Your task to perform on an android device: What's the weather like in Hong Kong? Image 0: 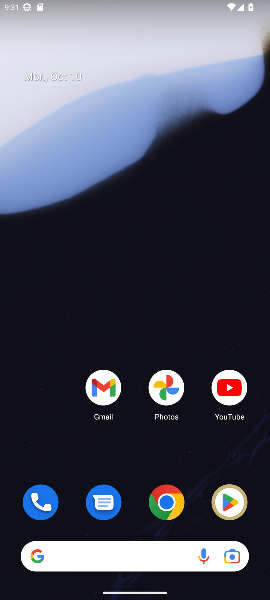
Step 0: click (162, 514)
Your task to perform on an android device: What's the weather like in Hong Kong? Image 1: 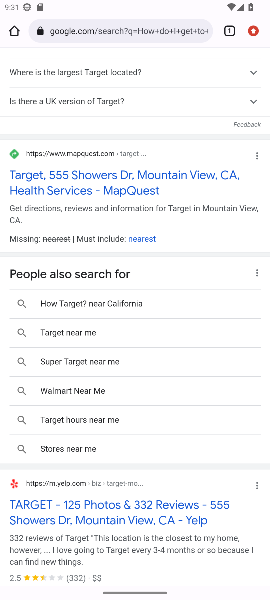
Step 1: click (93, 26)
Your task to perform on an android device: What's the weather like in Hong Kong? Image 2: 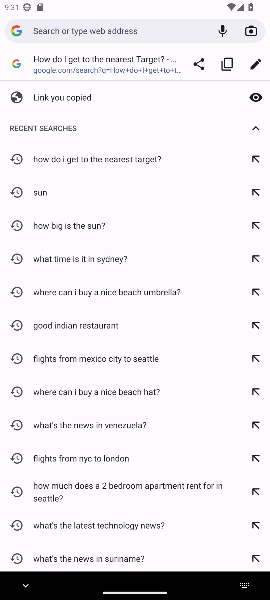
Step 2: type "What's the weather like in Hong Kong?"
Your task to perform on an android device: What's the weather like in Hong Kong? Image 3: 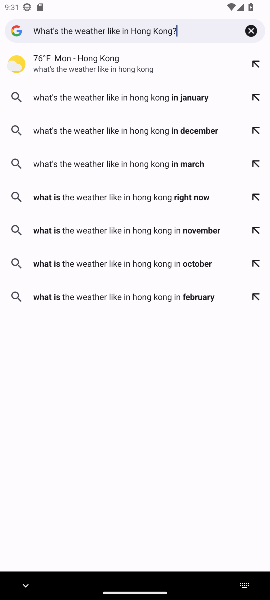
Step 3: type ""
Your task to perform on an android device: What's the weather like in Hong Kong? Image 4: 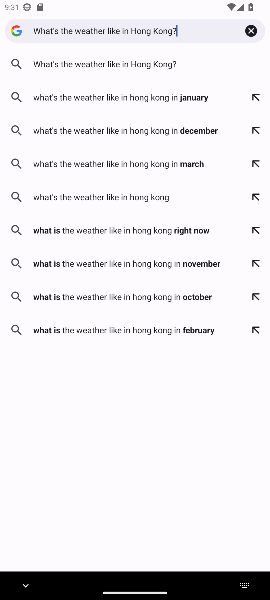
Step 4: click (90, 69)
Your task to perform on an android device: What's the weather like in Hong Kong? Image 5: 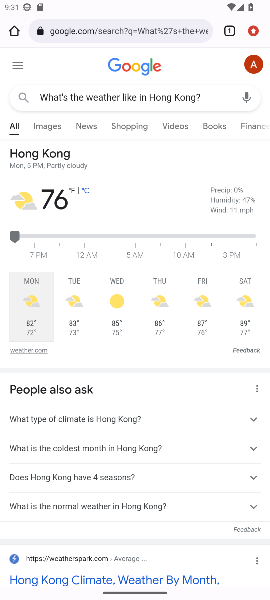
Step 5: click (110, 574)
Your task to perform on an android device: What's the weather like in Hong Kong? Image 6: 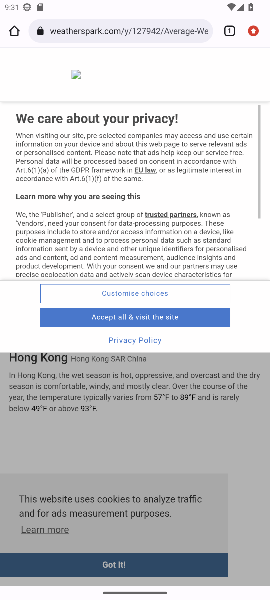
Step 6: drag from (115, 569) to (167, 235)
Your task to perform on an android device: What's the weather like in Hong Kong? Image 7: 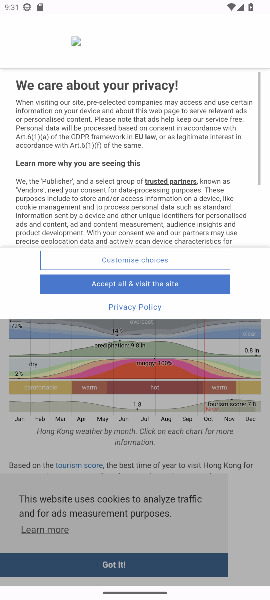
Step 7: click (120, 288)
Your task to perform on an android device: What's the weather like in Hong Kong? Image 8: 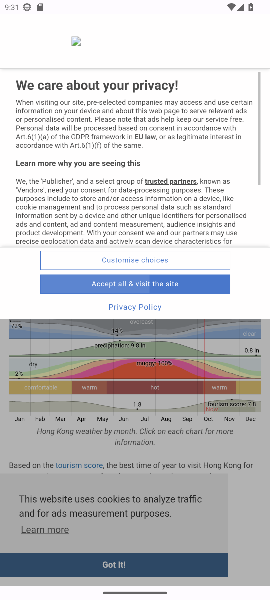
Step 8: click (175, 163)
Your task to perform on an android device: What's the weather like in Hong Kong? Image 9: 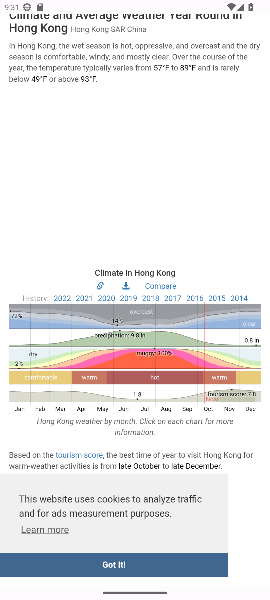
Step 9: click (128, 277)
Your task to perform on an android device: What's the weather like in Hong Kong? Image 10: 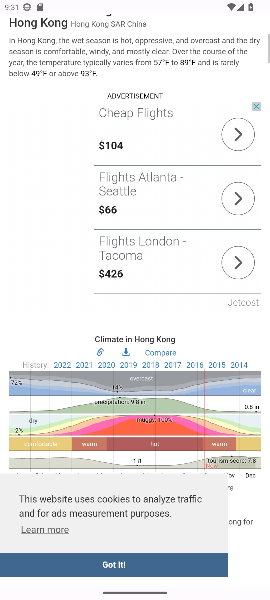
Step 10: drag from (144, 416) to (147, 113)
Your task to perform on an android device: What's the weather like in Hong Kong? Image 11: 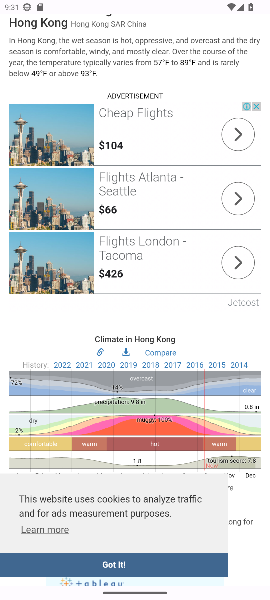
Step 11: drag from (164, 322) to (170, 122)
Your task to perform on an android device: What's the weather like in Hong Kong? Image 12: 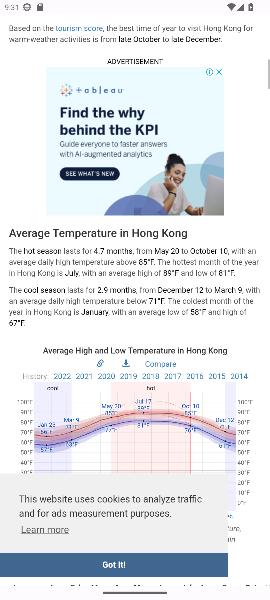
Step 12: drag from (185, 329) to (185, 143)
Your task to perform on an android device: What's the weather like in Hong Kong? Image 13: 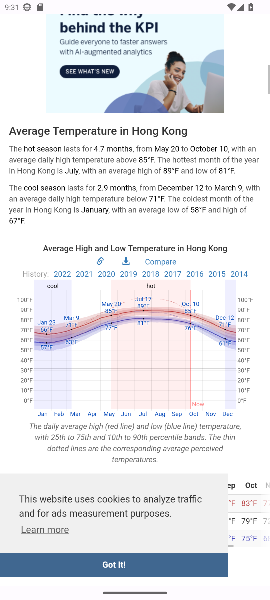
Step 13: drag from (205, 430) to (224, 174)
Your task to perform on an android device: What's the weather like in Hong Kong? Image 14: 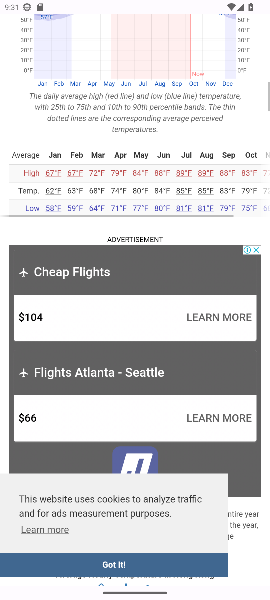
Step 14: drag from (175, 426) to (188, 183)
Your task to perform on an android device: What's the weather like in Hong Kong? Image 15: 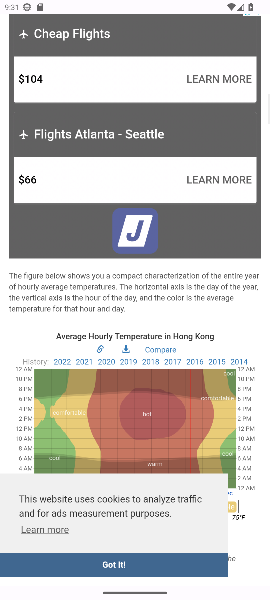
Step 15: click (104, 568)
Your task to perform on an android device: What's the weather like in Hong Kong? Image 16: 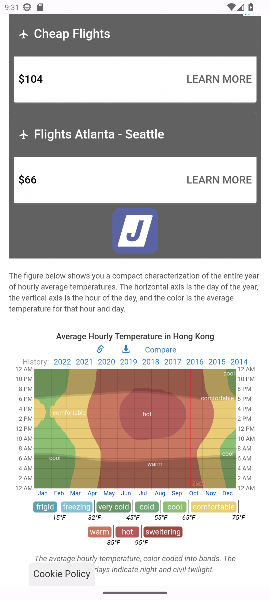
Step 16: drag from (160, 324) to (160, 165)
Your task to perform on an android device: What's the weather like in Hong Kong? Image 17: 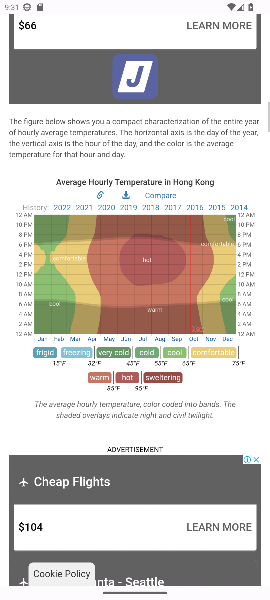
Step 17: drag from (158, 455) to (185, 236)
Your task to perform on an android device: What's the weather like in Hong Kong? Image 18: 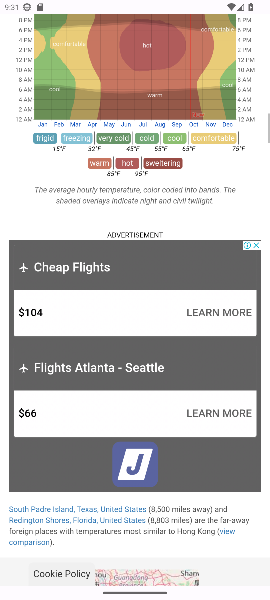
Step 18: drag from (168, 453) to (180, 188)
Your task to perform on an android device: What's the weather like in Hong Kong? Image 19: 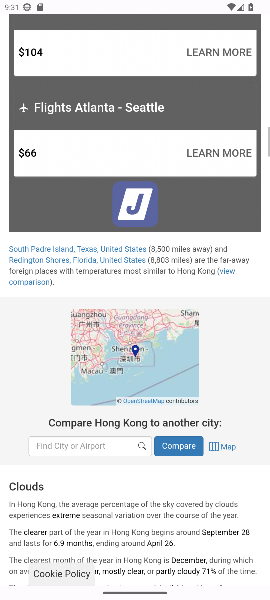
Step 19: drag from (171, 225) to (189, 184)
Your task to perform on an android device: What's the weather like in Hong Kong? Image 20: 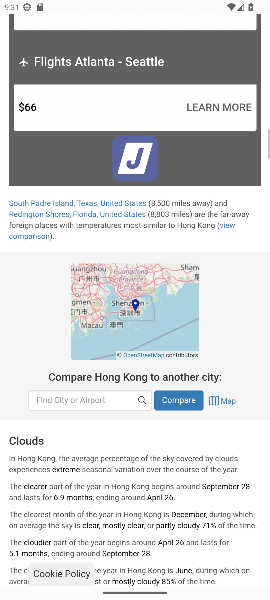
Step 20: drag from (179, 434) to (187, 135)
Your task to perform on an android device: What's the weather like in Hong Kong? Image 21: 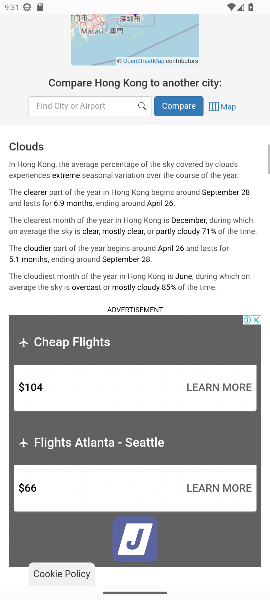
Step 21: drag from (191, 337) to (197, 153)
Your task to perform on an android device: What's the weather like in Hong Kong? Image 22: 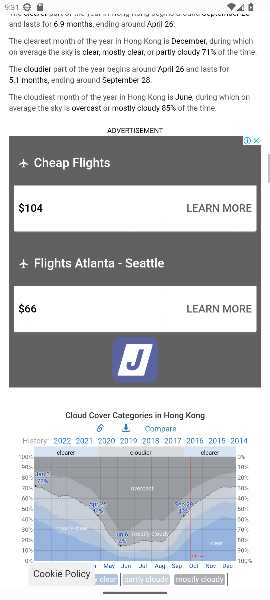
Step 22: click (179, 199)
Your task to perform on an android device: What's the weather like in Hong Kong? Image 23: 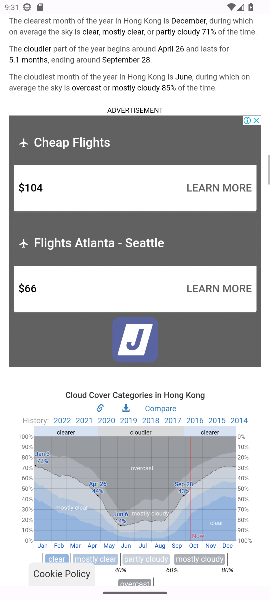
Step 23: drag from (159, 326) to (168, 210)
Your task to perform on an android device: What's the weather like in Hong Kong? Image 24: 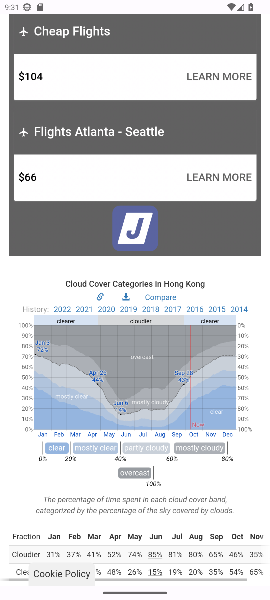
Step 24: drag from (151, 315) to (149, 159)
Your task to perform on an android device: What's the weather like in Hong Kong? Image 25: 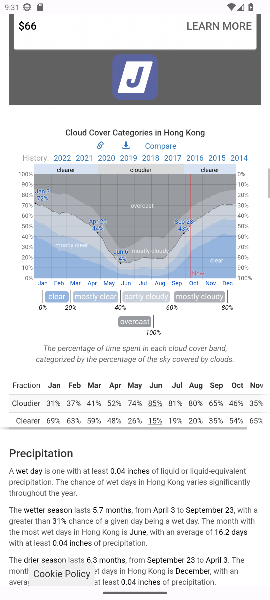
Step 25: drag from (138, 397) to (162, 119)
Your task to perform on an android device: What's the weather like in Hong Kong? Image 26: 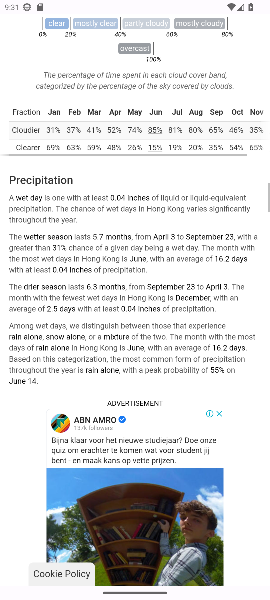
Step 26: drag from (162, 362) to (190, 98)
Your task to perform on an android device: What's the weather like in Hong Kong? Image 27: 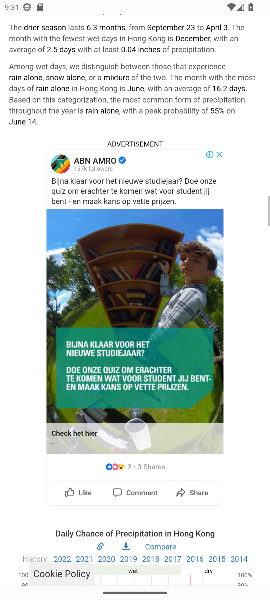
Step 27: drag from (158, 356) to (171, 102)
Your task to perform on an android device: What's the weather like in Hong Kong? Image 28: 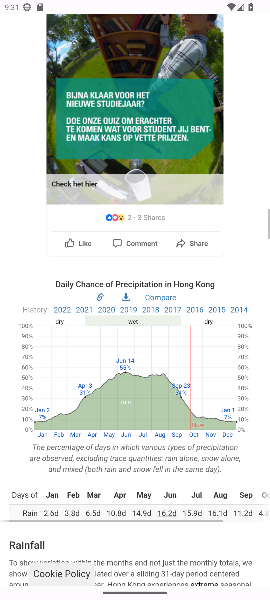
Step 28: drag from (166, 362) to (179, 105)
Your task to perform on an android device: What's the weather like in Hong Kong? Image 29: 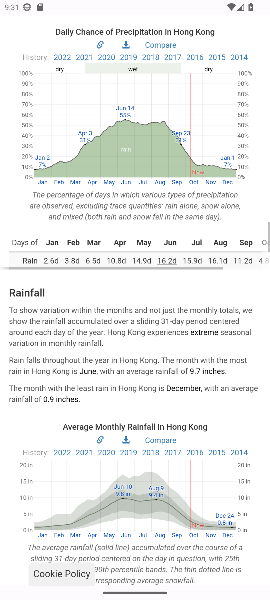
Step 29: drag from (181, 391) to (181, 125)
Your task to perform on an android device: What's the weather like in Hong Kong? Image 30: 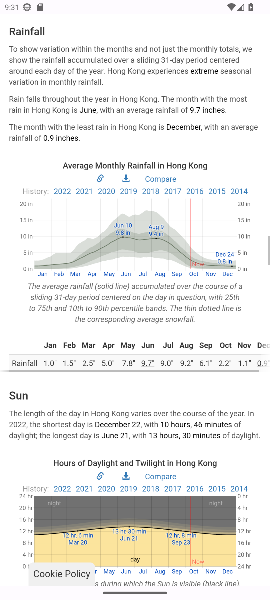
Step 30: drag from (140, 388) to (157, 164)
Your task to perform on an android device: What's the weather like in Hong Kong? Image 31: 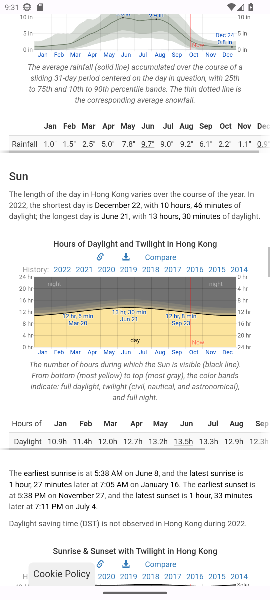
Step 31: drag from (154, 374) to (157, 133)
Your task to perform on an android device: What's the weather like in Hong Kong? Image 32: 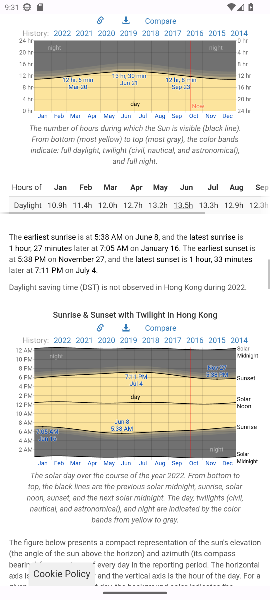
Step 32: click (170, 157)
Your task to perform on an android device: What's the weather like in Hong Kong? Image 33: 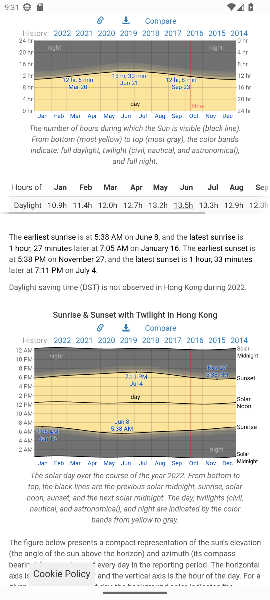
Step 33: drag from (173, 373) to (204, 128)
Your task to perform on an android device: What's the weather like in Hong Kong? Image 34: 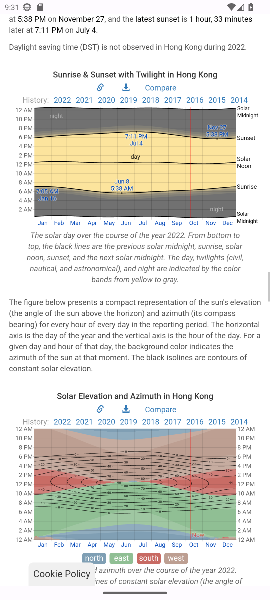
Step 34: drag from (215, 372) to (220, 144)
Your task to perform on an android device: What's the weather like in Hong Kong? Image 35: 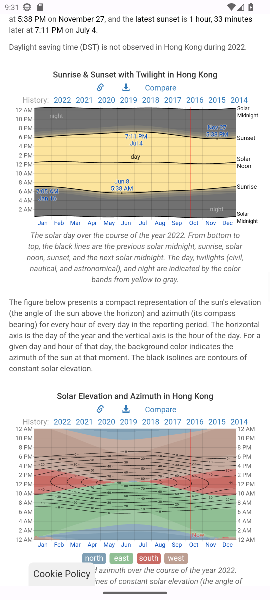
Step 35: drag from (202, 430) to (190, 108)
Your task to perform on an android device: What's the weather like in Hong Kong? Image 36: 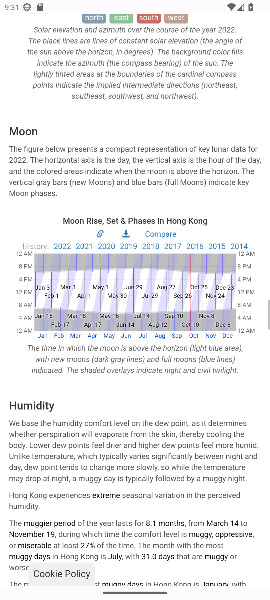
Step 36: click (178, 128)
Your task to perform on an android device: What's the weather like in Hong Kong? Image 37: 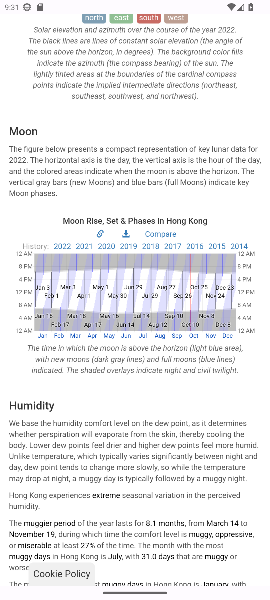
Step 37: drag from (172, 382) to (172, 141)
Your task to perform on an android device: What's the weather like in Hong Kong? Image 38: 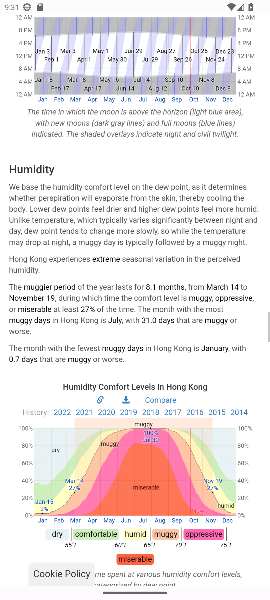
Step 38: drag from (203, 368) to (205, 134)
Your task to perform on an android device: What's the weather like in Hong Kong? Image 39: 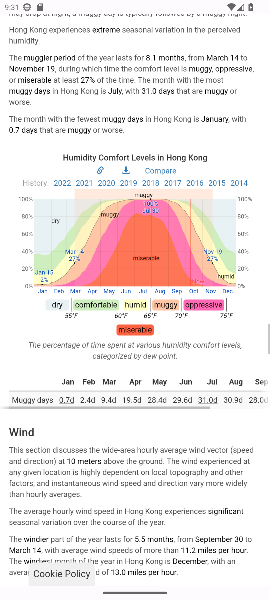
Step 39: drag from (205, 365) to (201, 135)
Your task to perform on an android device: What's the weather like in Hong Kong? Image 40: 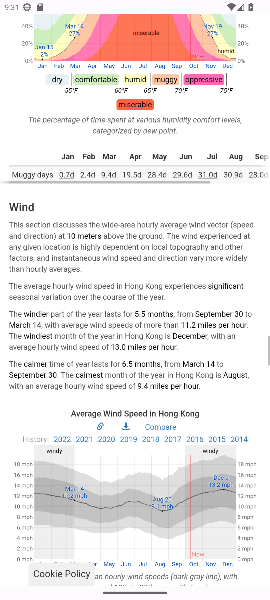
Step 40: drag from (177, 393) to (198, 126)
Your task to perform on an android device: What's the weather like in Hong Kong? Image 41: 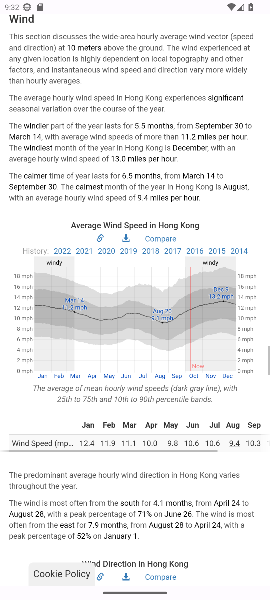
Step 41: drag from (168, 398) to (207, 122)
Your task to perform on an android device: What's the weather like in Hong Kong? Image 42: 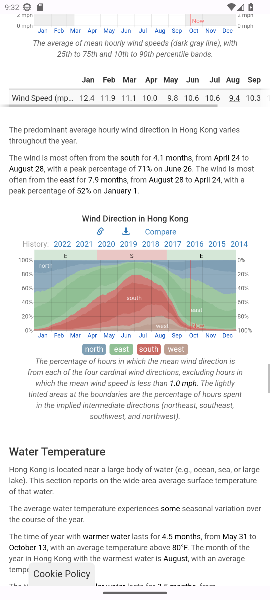
Step 42: drag from (192, 295) to (189, 89)
Your task to perform on an android device: What's the weather like in Hong Kong? Image 43: 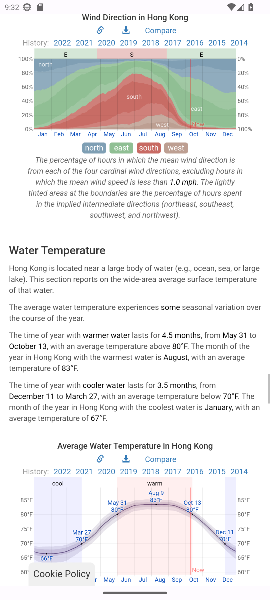
Step 43: drag from (204, 344) to (210, 121)
Your task to perform on an android device: What's the weather like in Hong Kong? Image 44: 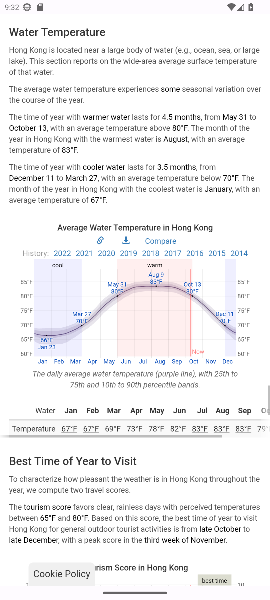
Step 44: drag from (186, 384) to (213, 121)
Your task to perform on an android device: What's the weather like in Hong Kong? Image 45: 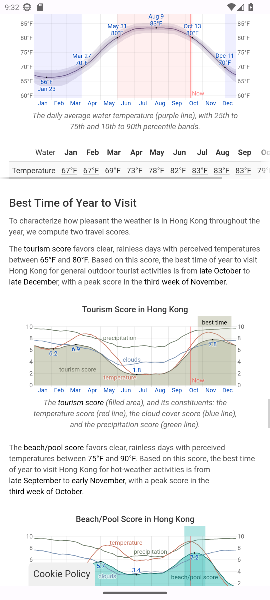
Step 45: drag from (158, 326) to (175, 131)
Your task to perform on an android device: What's the weather like in Hong Kong? Image 46: 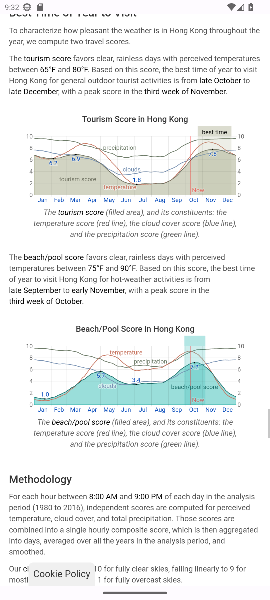
Step 46: drag from (177, 371) to (184, 125)
Your task to perform on an android device: What's the weather like in Hong Kong? Image 47: 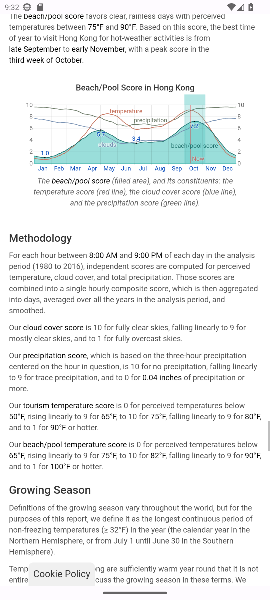
Step 47: drag from (195, 380) to (221, 156)
Your task to perform on an android device: What's the weather like in Hong Kong? Image 48: 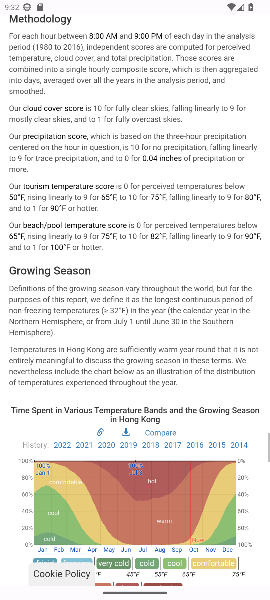
Step 48: drag from (219, 371) to (240, 154)
Your task to perform on an android device: What's the weather like in Hong Kong? Image 49: 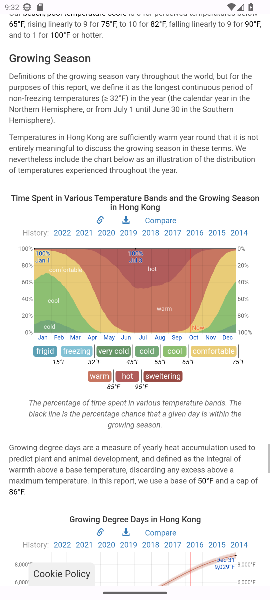
Step 49: drag from (203, 393) to (212, 179)
Your task to perform on an android device: What's the weather like in Hong Kong? Image 50: 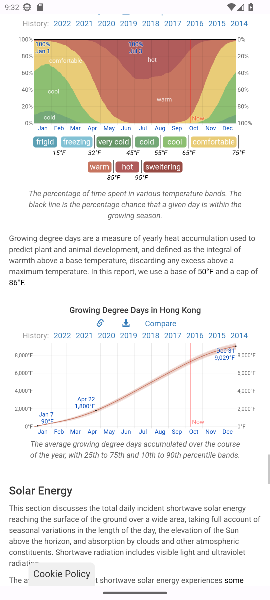
Step 50: drag from (169, 394) to (169, 198)
Your task to perform on an android device: What's the weather like in Hong Kong? Image 51: 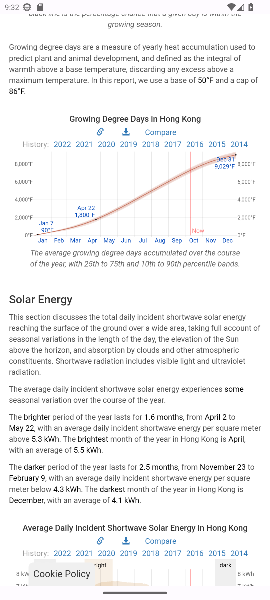
Step 51: drag from (104, 464) to (164, 184)
Your task to perform on an android device: What's the weather like in Hong Kong? Image 52: 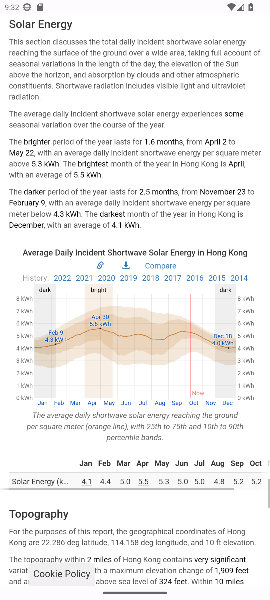
Step 52: drag from (137, 416) to (173, 150)
Your task to perform on an android device: What's the weather like in Hong Kong? Image 53: 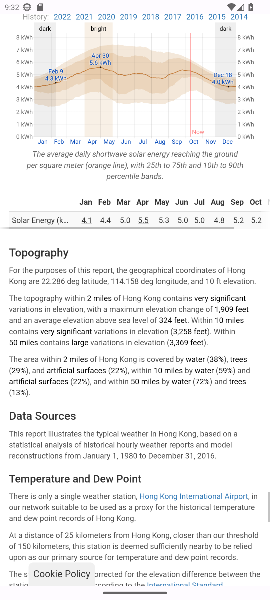
Step 53: drag from (179, 394) to (177, 198)
Your task to perform on an android device: What's the weather like in Hong Kong? Image 54: 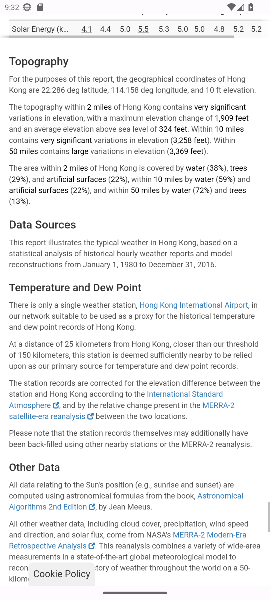
Step 54: drag from (178, 400) to (193, 262)
Your task to perform on an android device: What's the weather like in Hong Kong? Image 55: 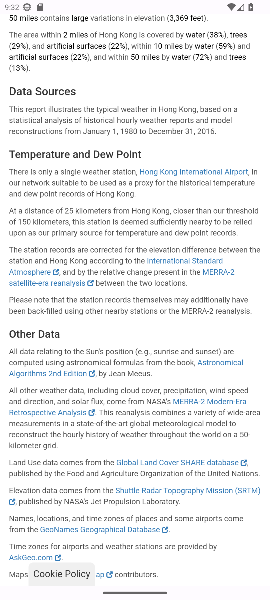
Step 55: drag from (195, 400) to (201, 125)
Your task to perform on an android device: What's the weather like in Hong Kong? Image 56: 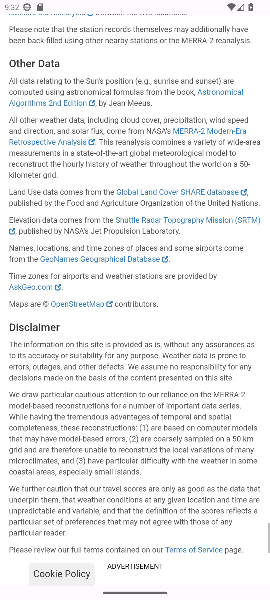
Step 56: drag from (196, 379) to (225, 148)
Your task to perform on an android device: What's the weather like in Hong Kong? Image 57: 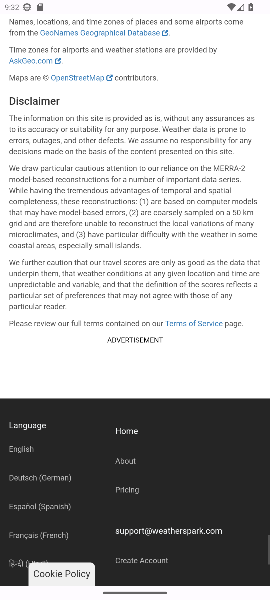
Step 57: drag from (200, 451) to (233, 168)
Your task to perform on an android device: What's the weather like in Hong Kong? Image 58: 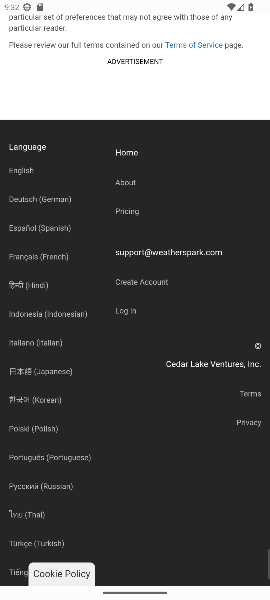
Step 58: drag from (183, 415) to (232, 214)
Your task to perform on an android device: What's the weather like in Hong Kong? Image 59: 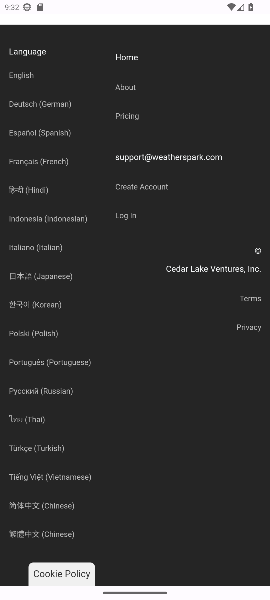
Step 59: press back button
Your task to perform on an android device: What's the weather like in Hong Kong? Image 60: 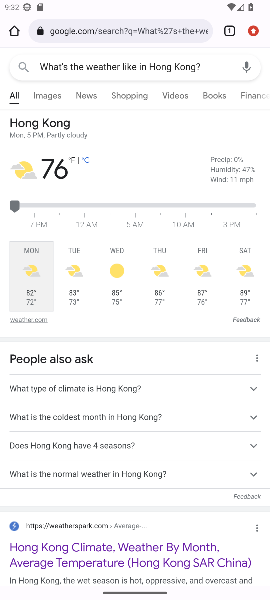
Step 60: drag from (199, 429) to (229, 159)
Your task to perform on an android device: What's the weather like in Hong Kong? Image 61: 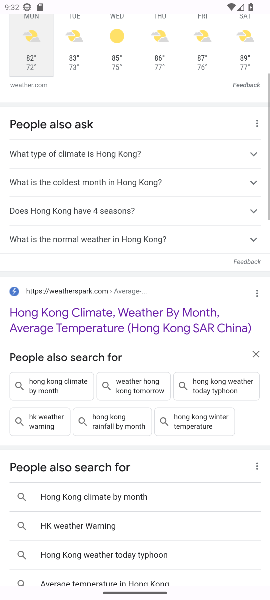
Step 61: drag from (201, 387) to (220, 120)
Your task to perform on an android device: What's the weather like in Hong Kong? Image 62: 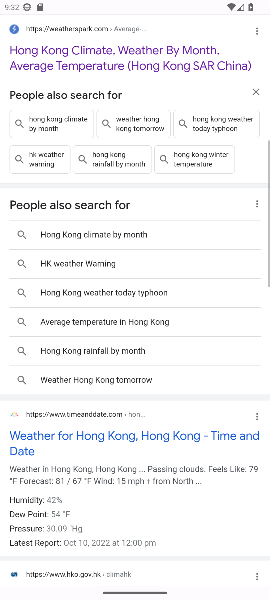
Step 62: drag from (200, 316) to (206, 96)
Your task to perform on an android device: What's the weather like in Hong Kong? Image 63: 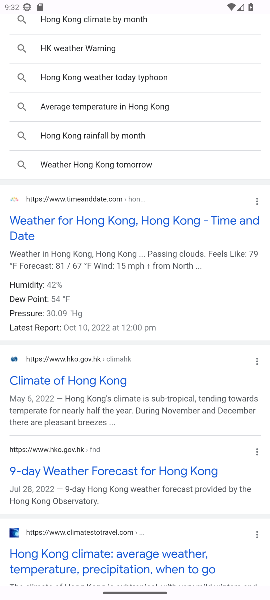
Step 63: drag from (157, 336) to (160, 35)
Your task to perform on an android device: What's the weather like in Hong Kong? Image 64: 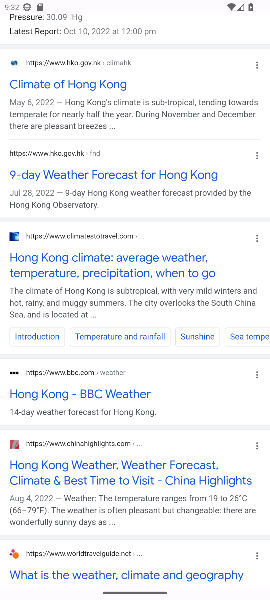
Step 64: click (83, 172)
Your task to perform on an android device: What's the weather like in Hong Kong? Image 65: 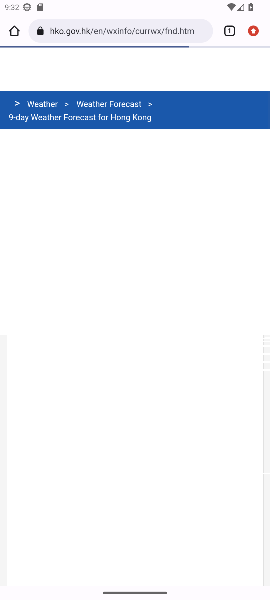
Step 65: drag from (67, 419) to (92, 201)
Your task to perform on an android device: What's the weather like in Hong Kong? Image 66: 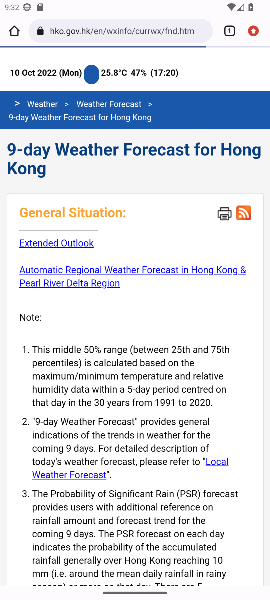
Step 66: drag from (103, 448) to (118, 340)
Your task to perform on an android device: What's the weather like in Hong Kong? Image 67: 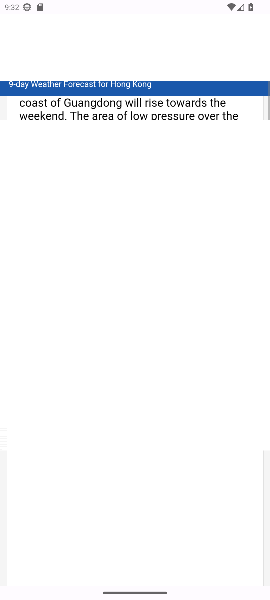
Step 67: drag from (127, 474) to (154, 396)
Your task to perform on an android device: What's the weather like in Hong Kong? Image 68: 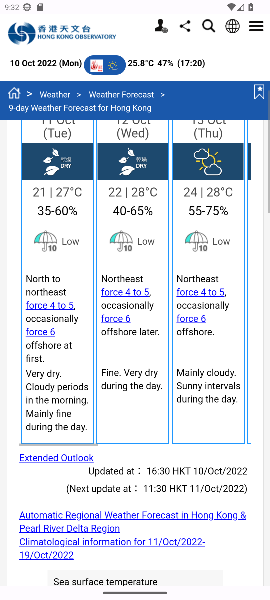
Step 68: drag from (150, 463) to (170, 312)
Your task to perform on an android device: What's the weather like in Hong Kong? Image 69: 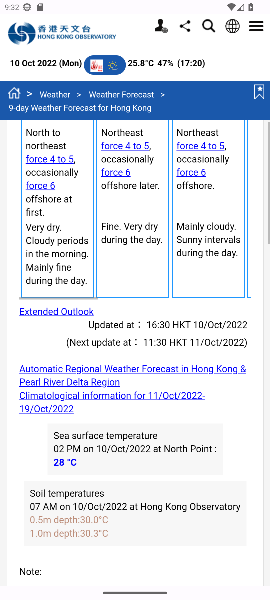
Step 69: drag from (161, 469) to (181, 284)
Your task to perform on an android device: What's the weather like in Hong Kong? Image 70: 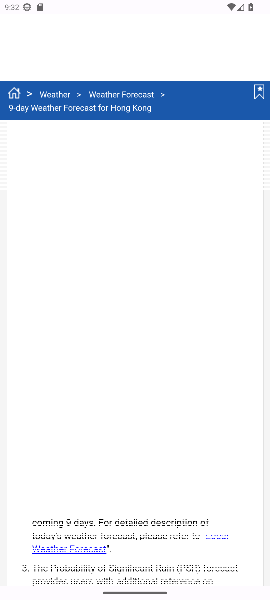
Step 70: drag from (193, 489) to (203, 304)
Your task to perform on an android device: What's the weather like in Hong Kong? Image 71: 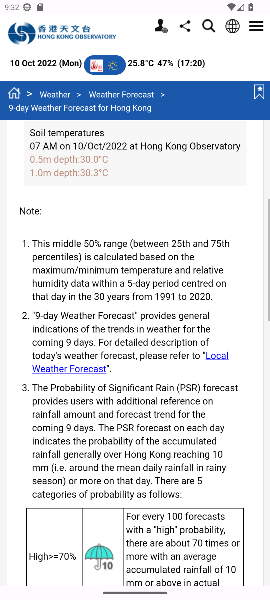
Step 71: drag from (193, 396) to (187, 256)
Your task to perform on an android device: What's the weather like in Hong Kong? Image 72: 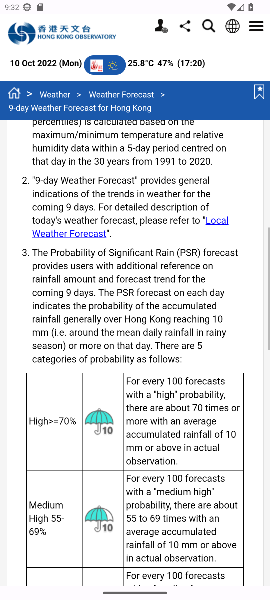
Step 72: drag from (151, 456) to (150, 197)
Your task to perform on an android device: What's the weather like in Hong Kong? Image 73: 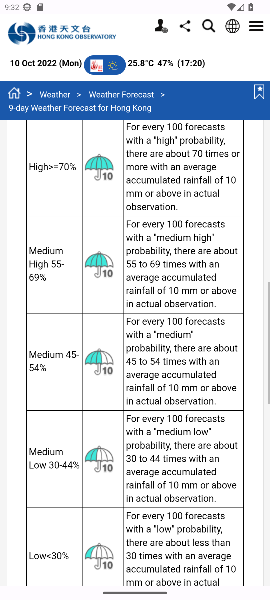
Step 73: drag from (145, 379) to (167, 172)
Your task to perform on an android device: What's the weather like in Hong Kong? Image 74: 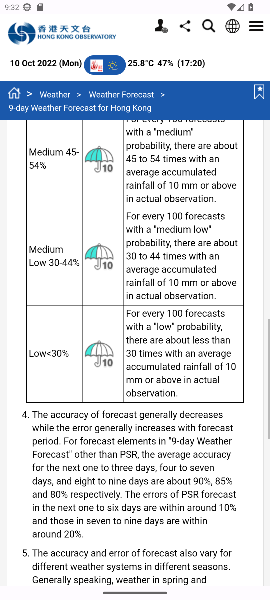
Step 74: drag from (137, 405) to (152, 207)
Your task to perform on an android device: What's the weather like in Hong Kong? Image 75: 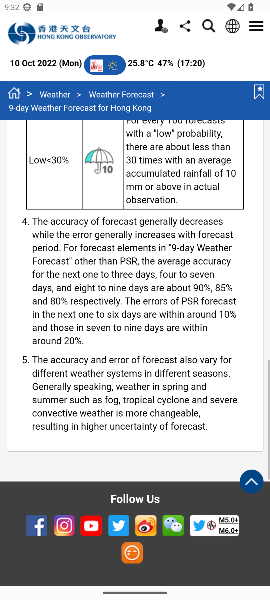
Step 75: drag from (127, 341) to (137, 283)
Your task to perform on an android device: What's the weather like in Hong Kong? Image 76: 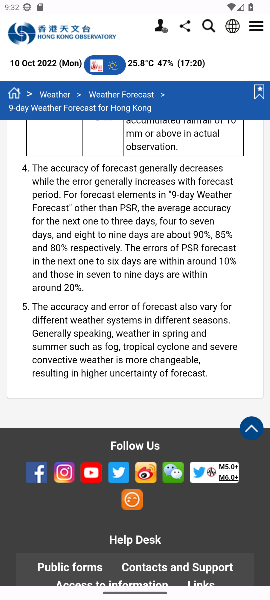
Step 76: drag from (139, 377) to (146, 226)
Your task to perform on an android device: What's the weather like in Hong Kong? Image 77: 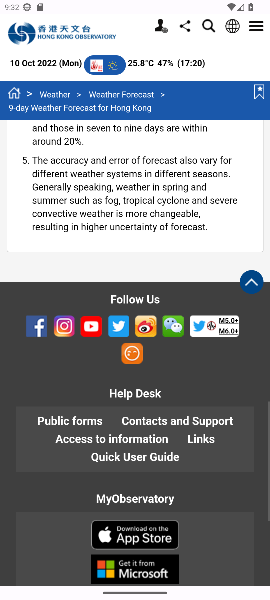
Step 77: drag from (151, 374) to (149, 237)
Your task to perform on an android device: What's the weather like in Hong Kong? Image 78: 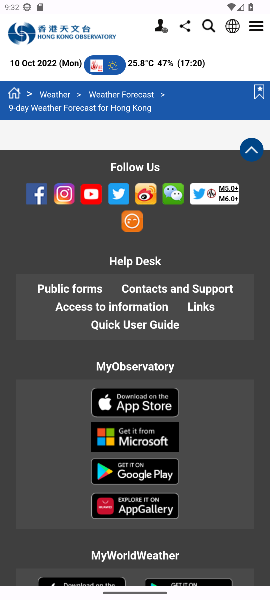
Step 78: drag from (144, 427) to (128, 228)
Your task to perform on an android device: What's the weather like in Hong Kong? Image 79: 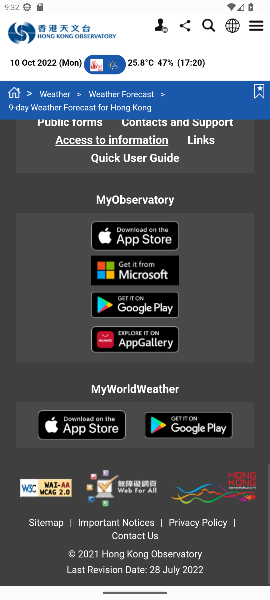
Step 79: click (129, 270)
Your task to perform on an android device: What's the weather like in Hong Kong? Image 80: 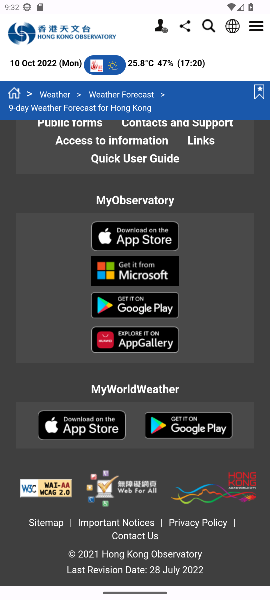
Step 80: drag from (122, 489) to (160, 292)
Your task to perform on an android device: What's the weather like in Hong Kong? Image 81: 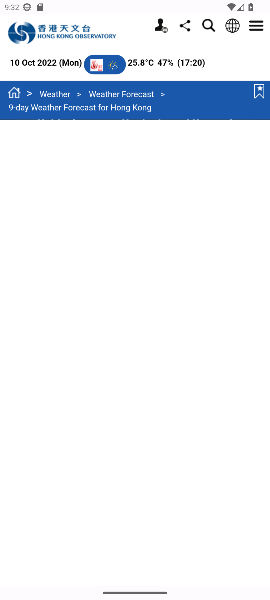
Step 81: press back button
Your task to perform on an android device: What's the weather like in Hong Kong? Image 82: 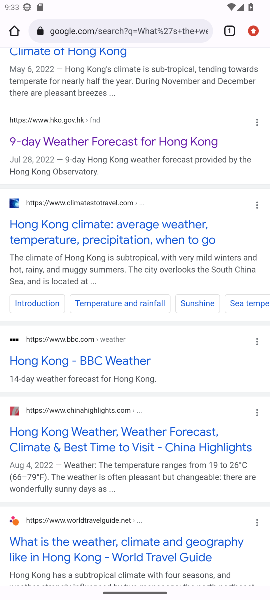
Step 82: click (119, 363)
Your task to perform on an android device: What's the weather like in Hong Kong? Image 83: 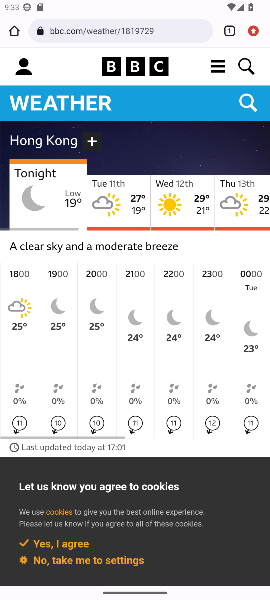
Step 83: task complete